Your task to perform on an android device: open a new tab in the chrome app Image 0: 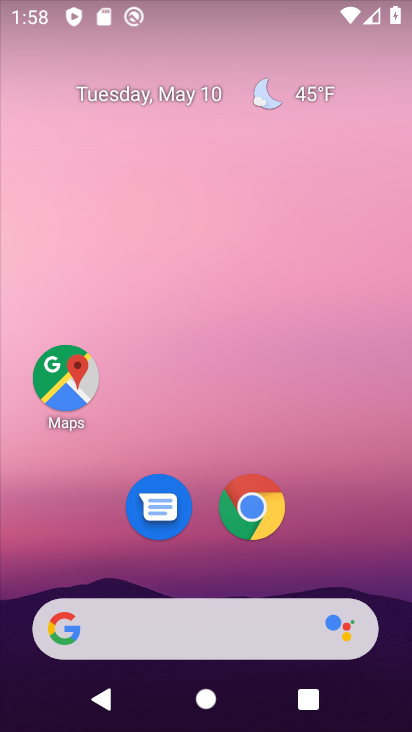
Step 0: click (265, 513)
Your task to perform on an android device: open a new tab in the chrome app Image 1: 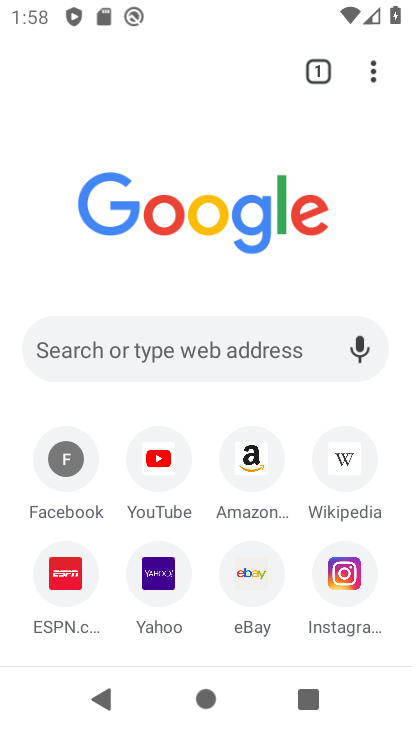
Step 1: drag from (373, 73) to (120, 134)
Your task to perform on an android device: open a new tab in the chrome app Image 2: 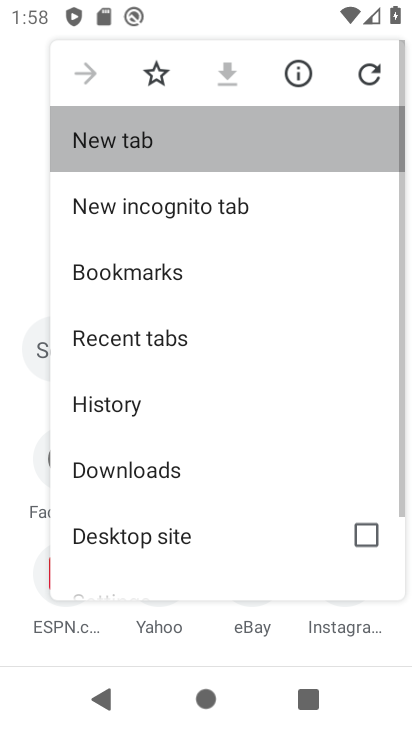
Step 2: click (119, 134)
Your task to perform on an android device: open a new tab in the chrome app Image 3: 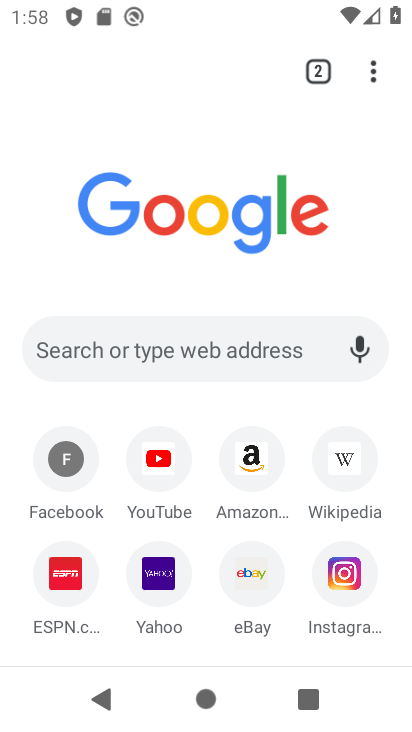
Step 3: task complete